Your task to perform on an android device: Toggle the flashlight Image 0: 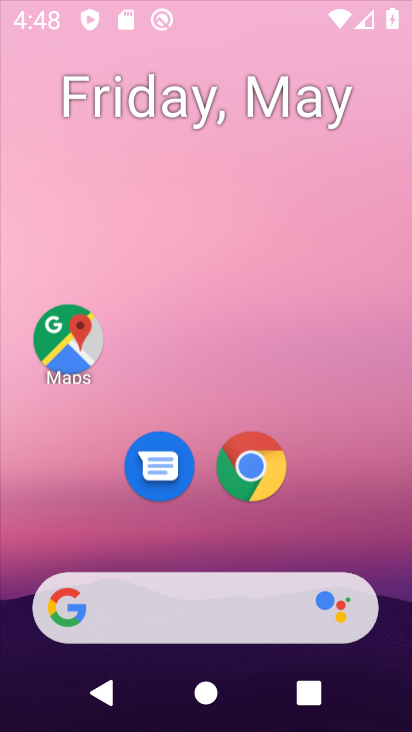
Step 0: drag from (314, 519) to (307, 146)
Your task to perform on an android device: Toggle the flashlight Image 1: 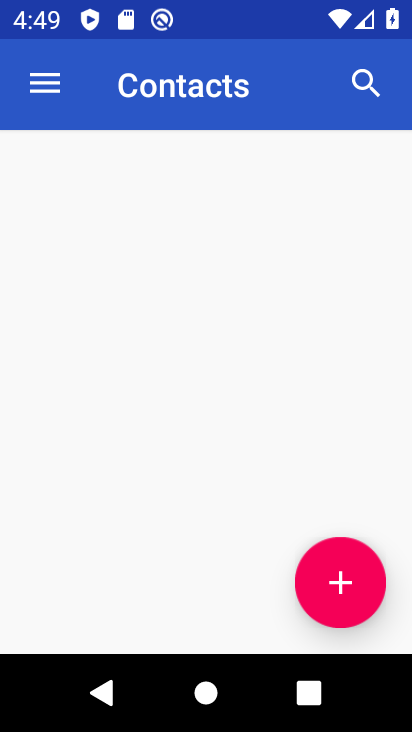
Step 1: press home button
Your task to perform on an android device: Toggle the flashlight Image 2: 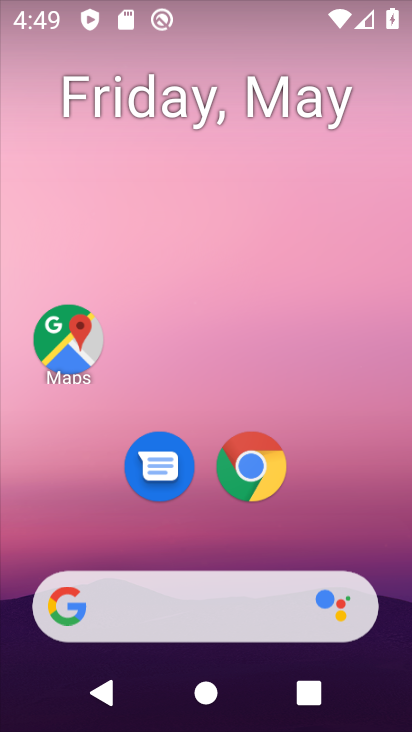
Step 2: drag from (342, 546) to (344, 72)
Your task to perform on an android device: Toggle the flashlight Image 3: 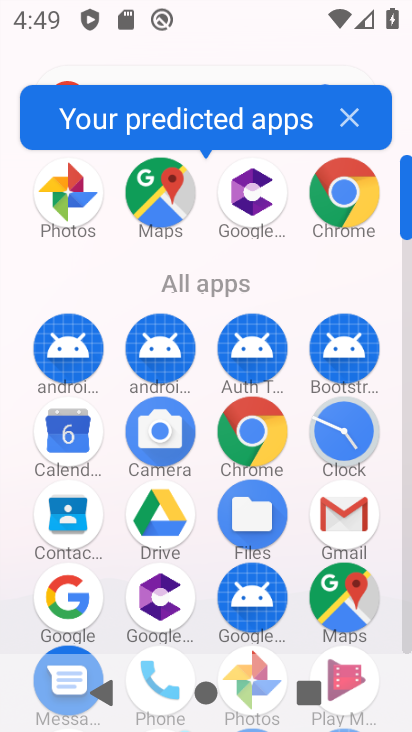
Step 3: drag from (194, 562) to (202, 289)
Your task to perform on an android device: Toggle the flashlight Image 4: 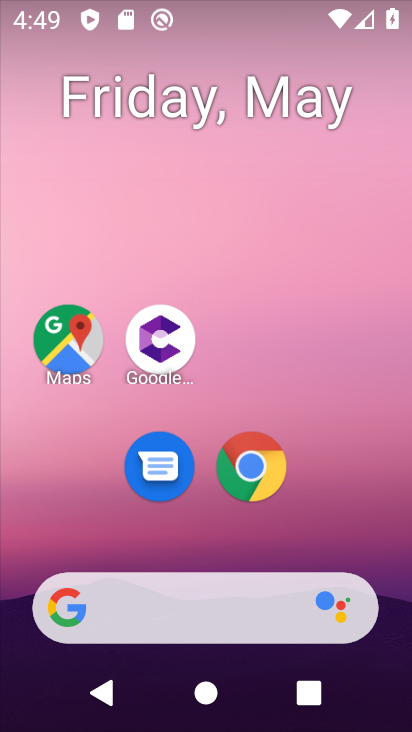
Step 4: drag from (307, 484) to (324, 14)
Your task to perform on an android device: Toggle the flashlight Image 5: 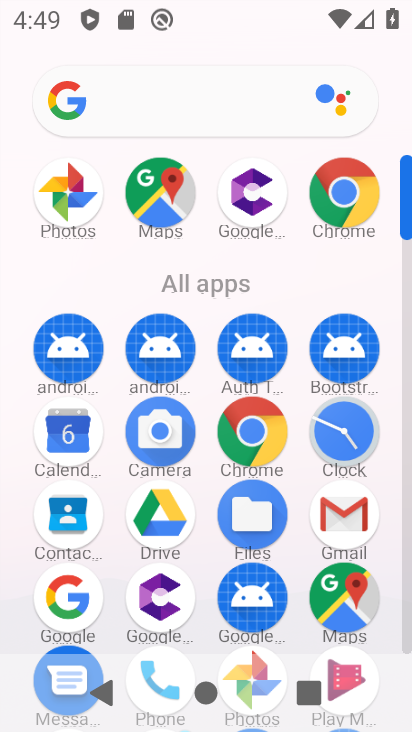
Step 5: drag from (295, 557) to (312, 303)
Your task to perform on an android device: Toggle the flashlight Image 6: 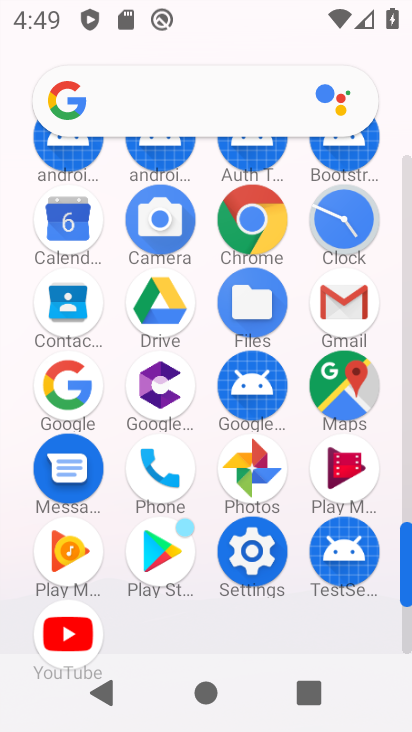
Step 6: click (246, 573)
Your task to perform on an android device: Toggle the flashlight Image 7: 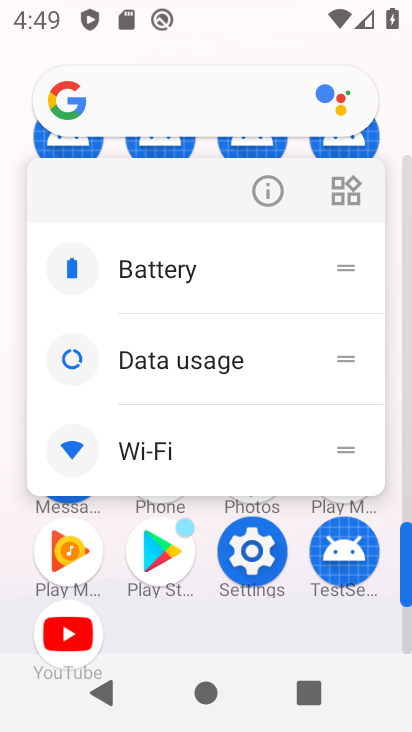
Step 7: click (249, 571)
Your task to perform on an android device: Toggle the flashlight Image 8: 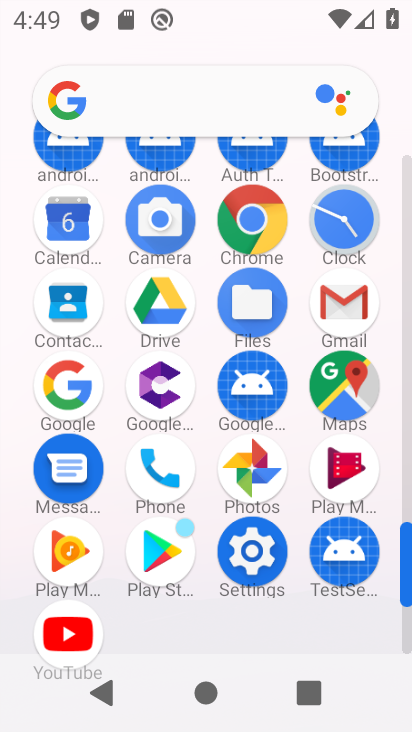
Step 8: click (249, 571)
Your task to perform on an android device: Toggle the flashlight Image 9: 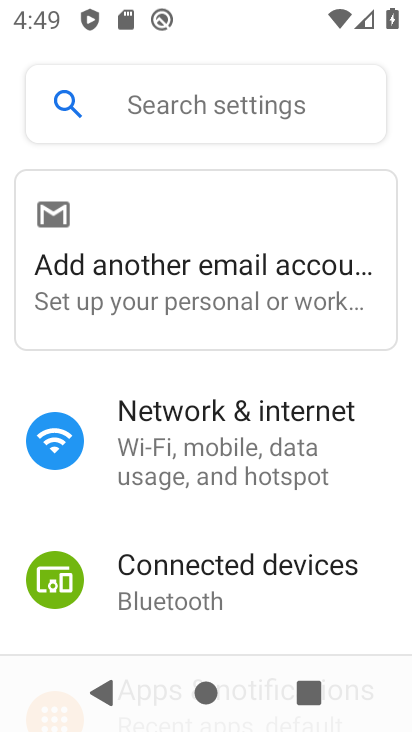
Step 9: task complete